Your task to perform on an android device: Go to eBay Image 0: 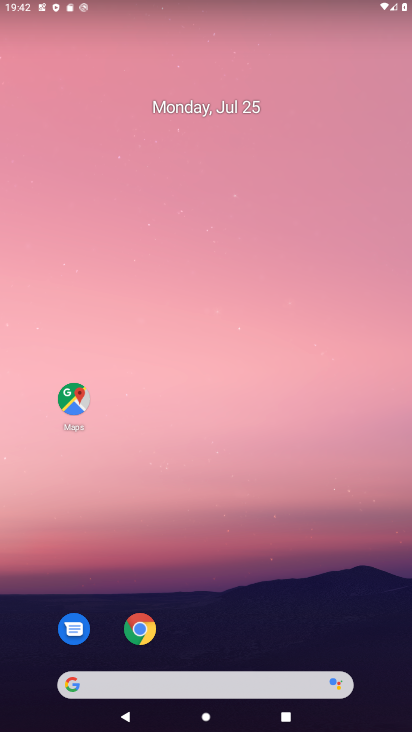
Step 0: click (105, 675)
Your task to perform on an android device: Go to eBay Image 1: 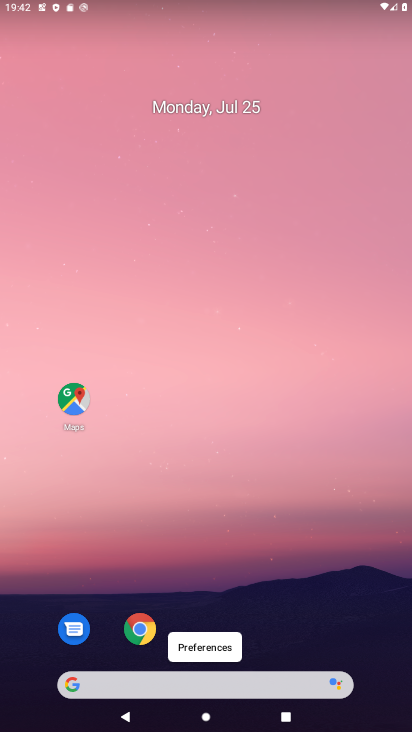
Step 1: click (137, 680)
Your task to perform on an android device: Go to eBay Image 2: 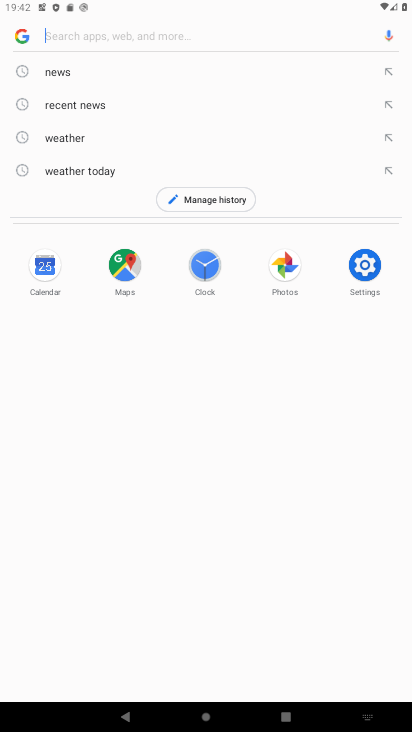
Step 2: type " eBay"
Your task to perform on an android device: Go to eBay Image 3: 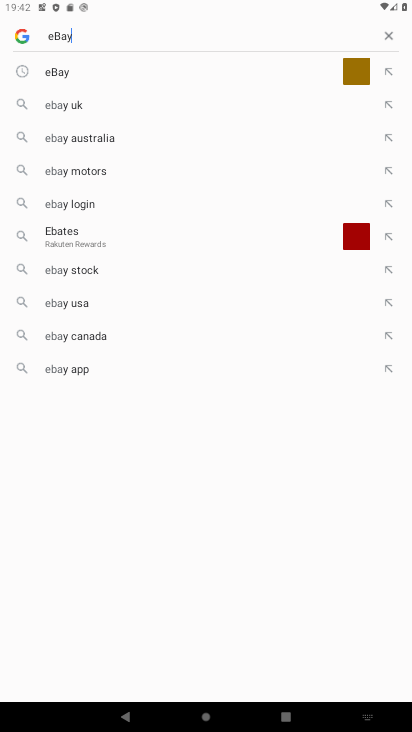
Step 3: type ""
Your task to perform on an android device: Go to eBay Image 4: 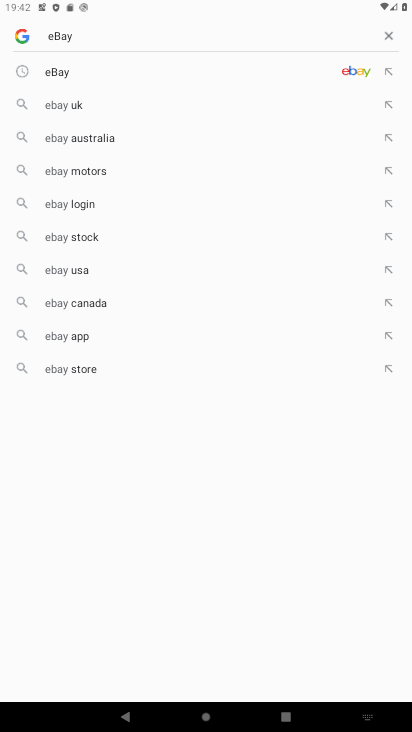
Step 4: click (47, 68)
Your task to perform on an android device: Go to eBay Image 5: 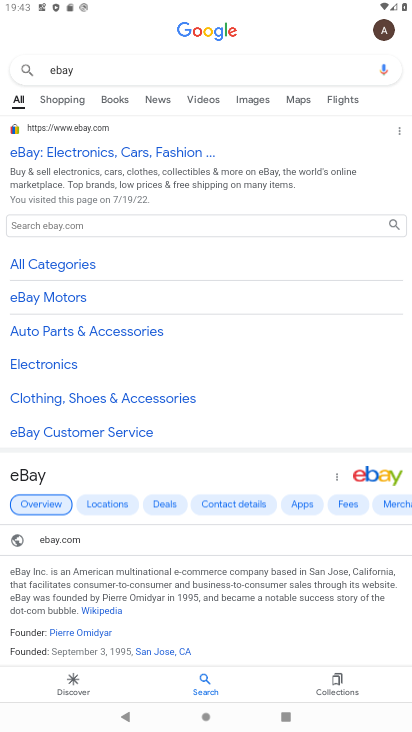
Step 5: task complete